Your task to perform on an android device: toggle notifications settings in the gmail app Image 0: 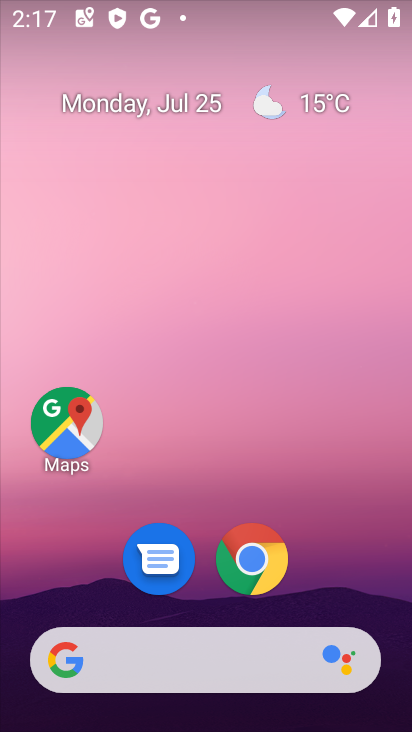
Step 0: drag from (65, 591) to (191, 62)
Your task to perform on an android device: toggle notifications settings in the gmail app Image 1: 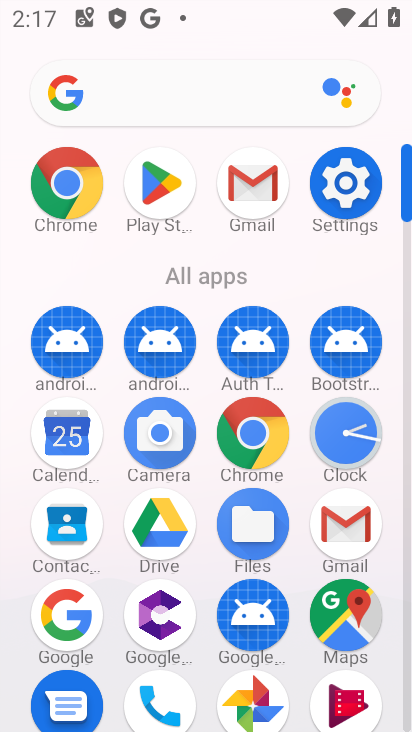
Step 1: click (274, 185)
Your task to perform on an android device: toggle notifications settings in the gmail app Image 2: 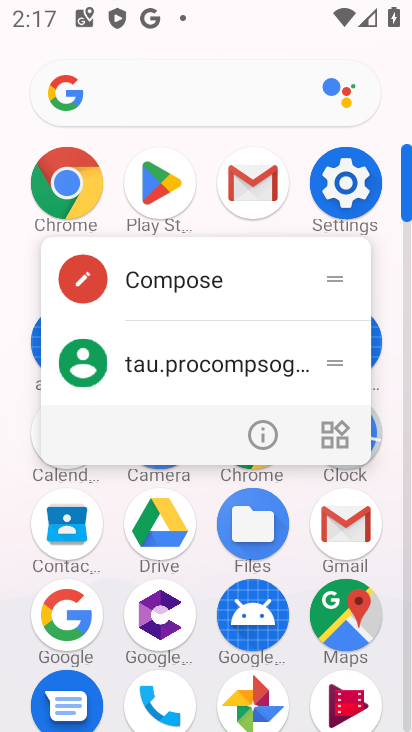
Step 2: click (254, 449)
Your task to perform on an android device: toggle notifications settings in the gmail app Image 3: 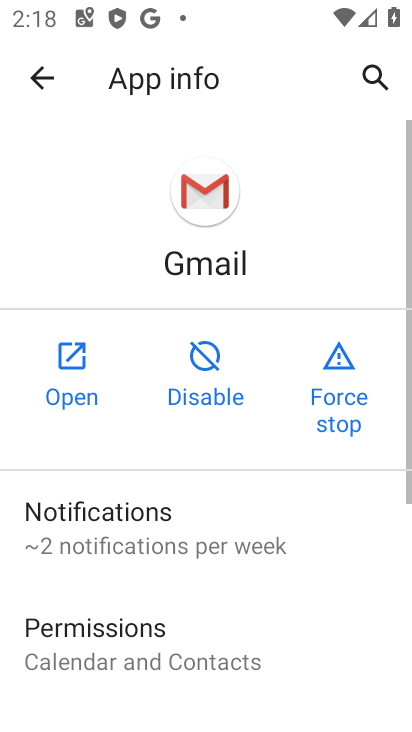
Step 3: click (169, 532)
Your task to perform on an android device: toggle notifications settings in the gmail app Image 4: 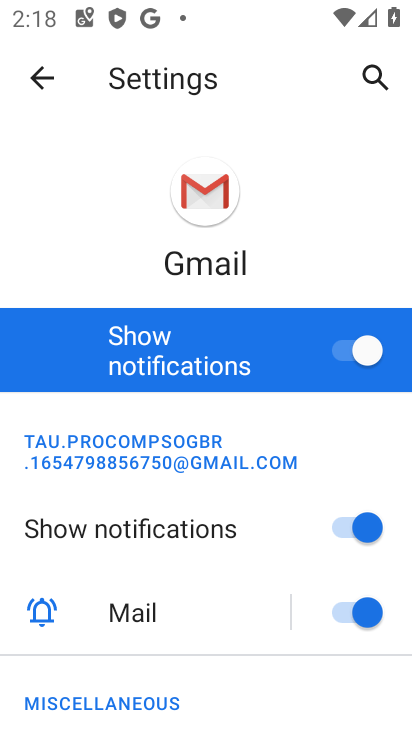
Step 4: click (361, 352)
Your task to perform on an android device: toggle notifications settings in the gmail app Image 5: 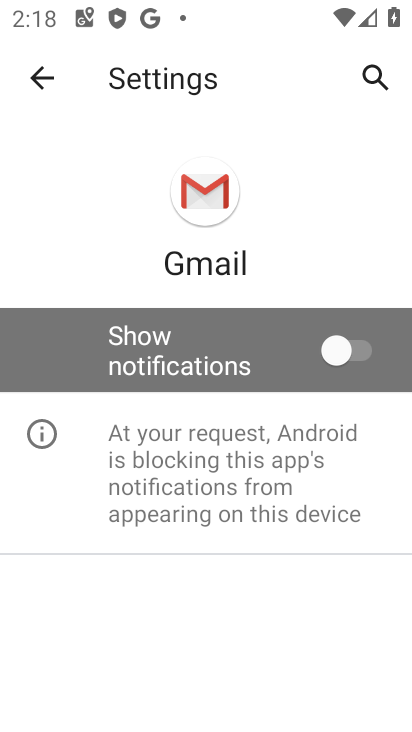
Step 5: task complete